Your task to perform on an android device: turn notification dots on Image 0: 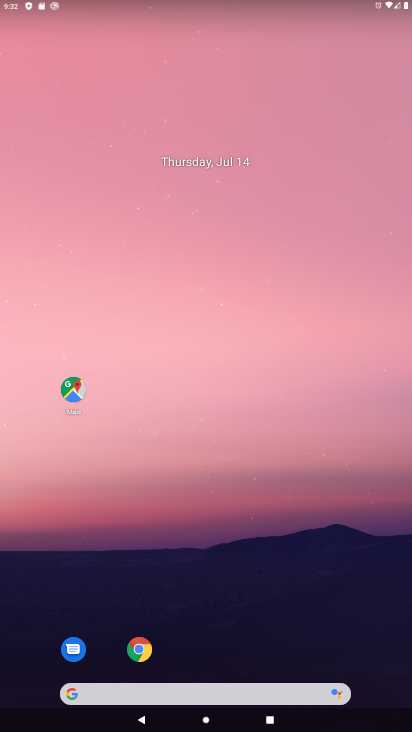
Step 0: drag from (171, 695) to (215, 1)
Your task to perform on an android device: turn notification dots on Image 1: 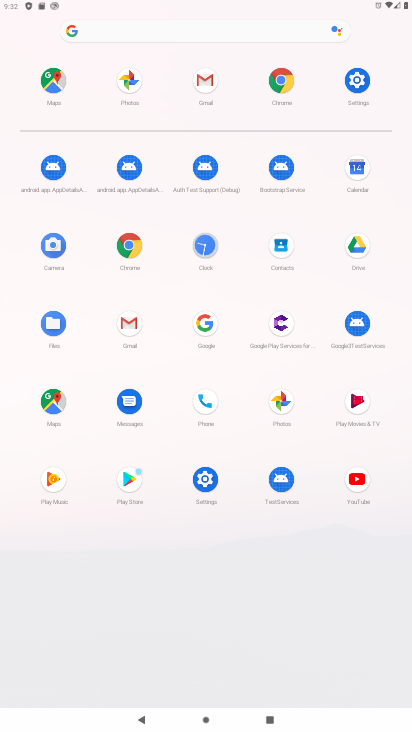
Step 1: click (362, 85)
Your task to perform on an android device: turn notification dots on Image 2: 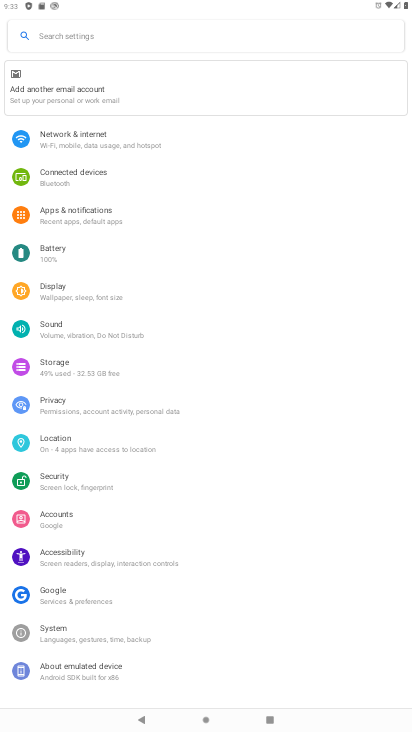
Step 2: click (64, 215)
Your task to perform on an android device: turn notification dots on Image 3: 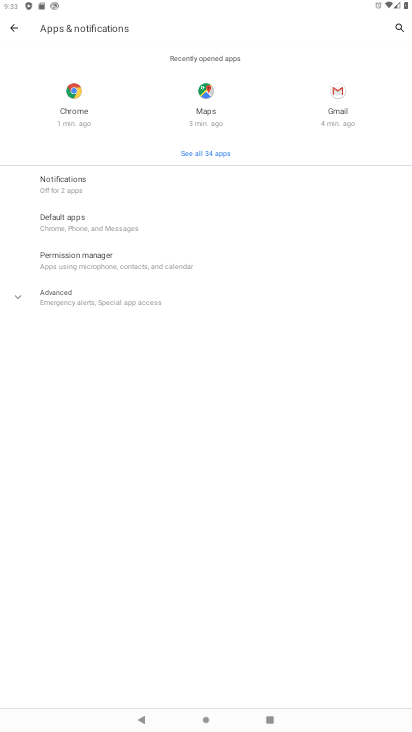
Step 3: click (90, 186)
Your task to perform on an android device: turn notification dots on Image 4: 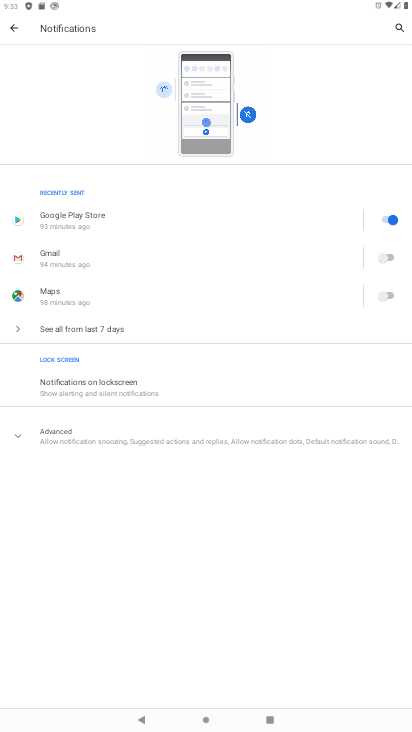
Step 4: click (190, 437)
Your task to perform on an android device: turn notification dots on Image 5: 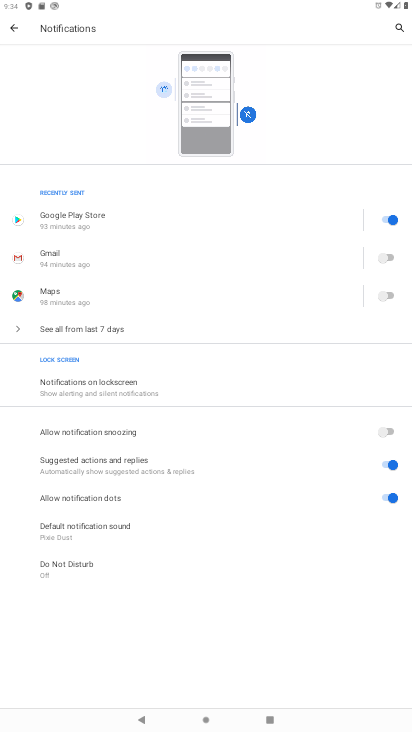
Step 5: task complete